Your task to perform on an android device: find photos in the google photos app Image 0: 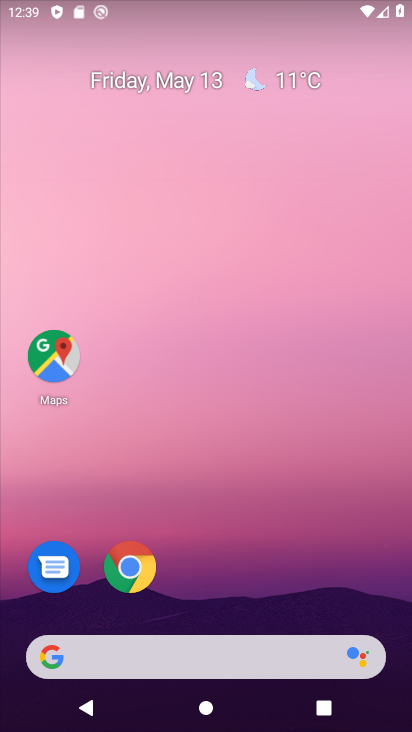
Step 0: drag from (219, 617) to (212, 274)
Your task to perform on an android device: find photos in the google photos app Image 1: 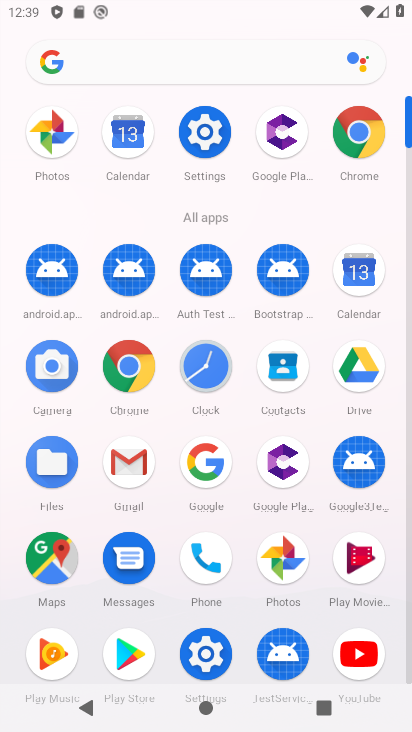
Step 1: click (61, 148)
Your task to perform on an android device: find photos in the google photos app Image 2: 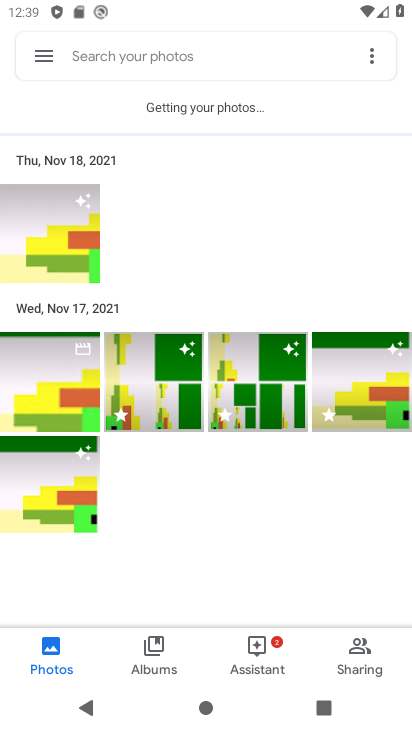
Step 2: task complete